Your task to perform on an android device: Open privacy settings Image 0: 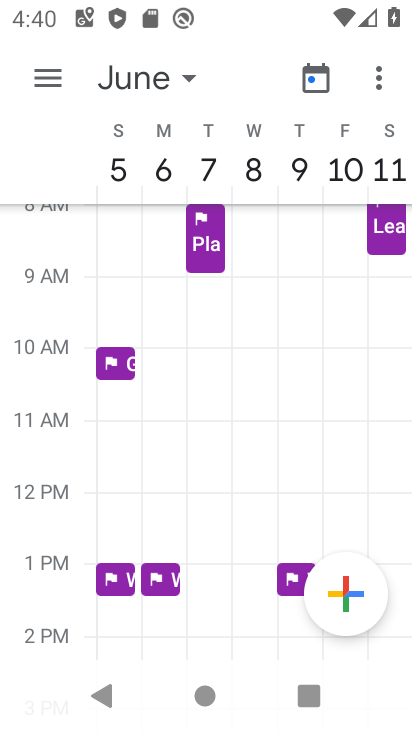
Step 0: task complete